Your task to perform on an android device: Go to eBay Image 0: 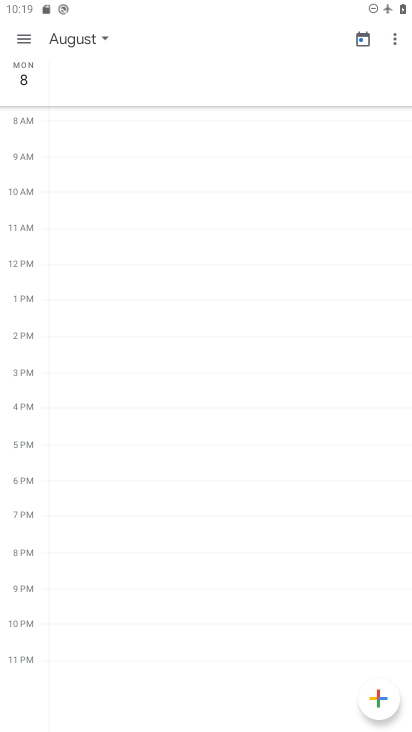
Step 0: press home button
Your task to perform on an android device: Go to eBay Image 1: 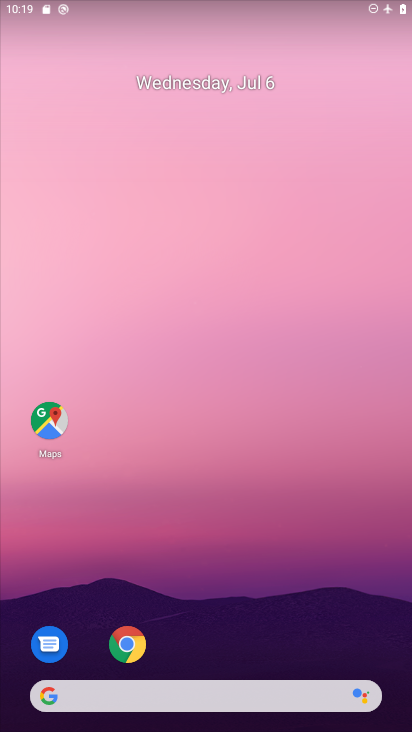
Step 1: click (108, 657)
Your task to perform on an android device: Go to eBay Image 2: 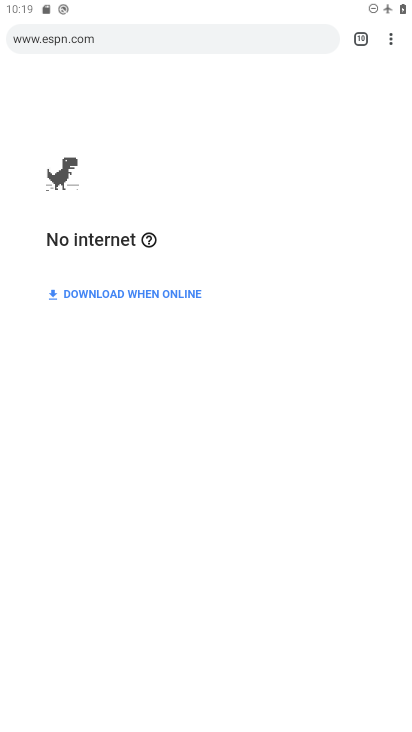
Step 2: click (348, 44)
Your task to perform on an android device: Go to eBay Image 3: 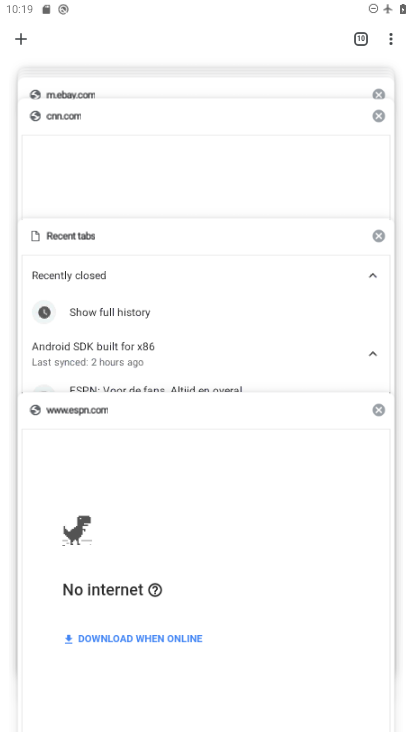
Step 3: click (19, 32)
Your task to perform on an android device: Go to eBay Image 4: 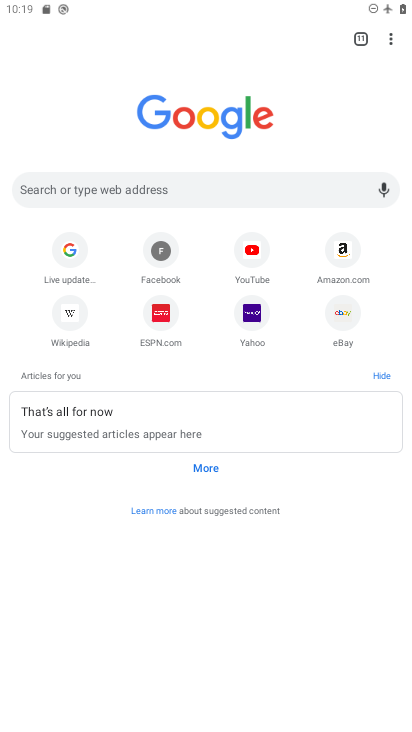
Step 4: click (337, 313)
Your task to perform on an android device: Go to eBay Image 5: 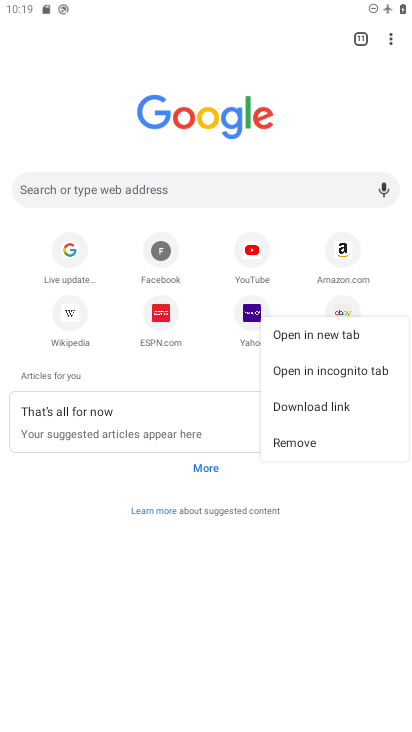
Step 5: click (336, 311)
Your task to perform on an android device: Go to eBay Image 6: 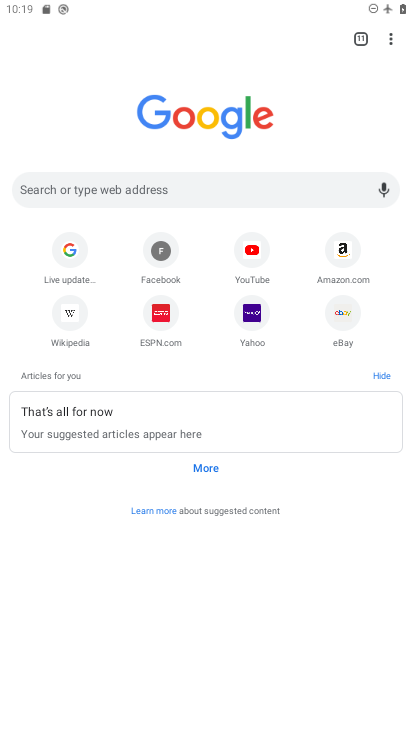
Step 6: click (339, 316)
Your task to perform on an android device: Go to eBay Image 7: 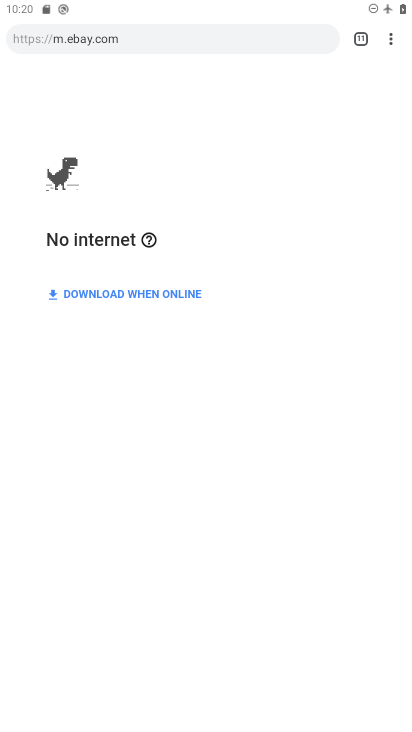
Step 7: task complete